Your task to perform on an android device: clear history in the chrome app Image 0: 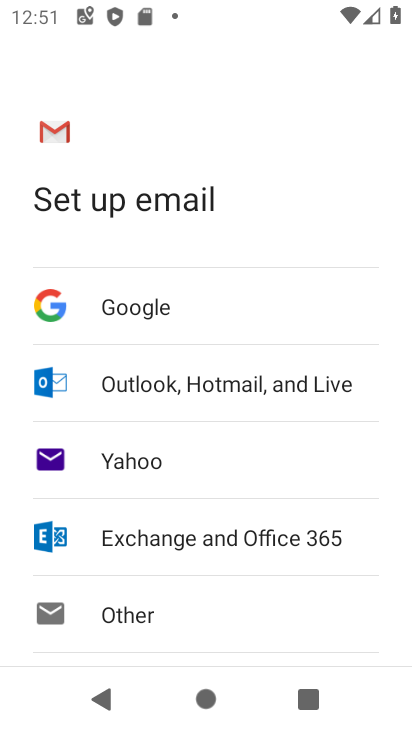
Step 0: press home button
Your task to perform on an android device: clear history in the chrome app Image 1: 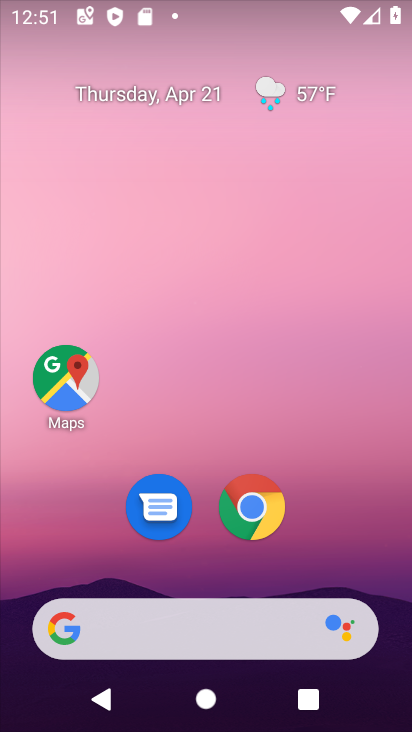
Step 1: click (251, 503)
Your task to perform on an android device: clear history in the chrome app Image 2: 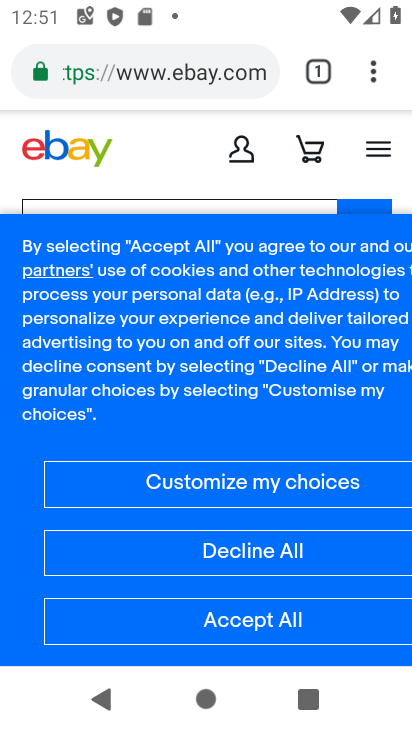
Step 2: click (373, 75)
Your task to perform on an android device: clear history in the chrome app Image 3: 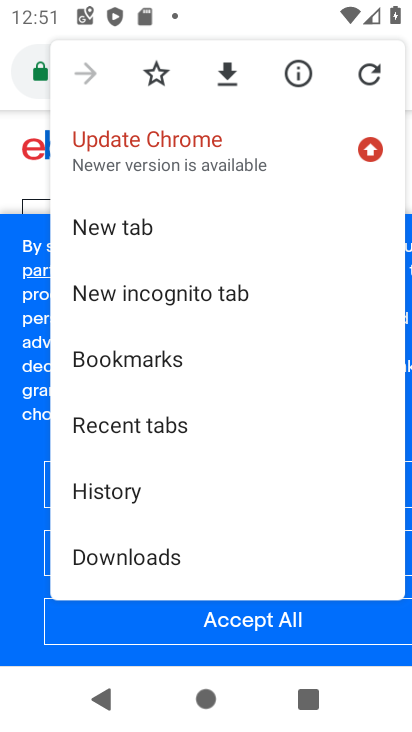
Step 3: click (106, 491)
Your task to perform on an android device: clear history in the chrome app Image 4: 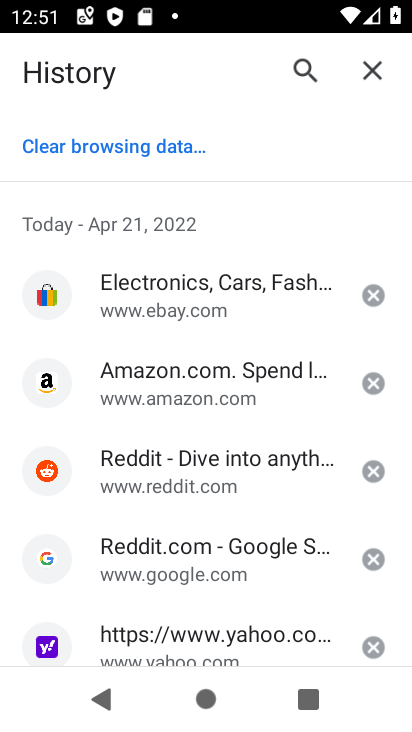
Step 4: click (94, 151)
Your task to perform on an android device: clear history in the chrome app Image 5: 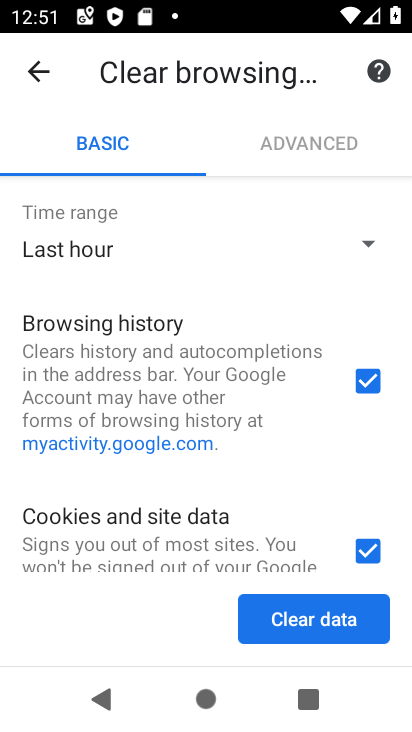
Step 5: click (319, 628)
Your task to perform on an android device: clear history in the chrome app Image 6: 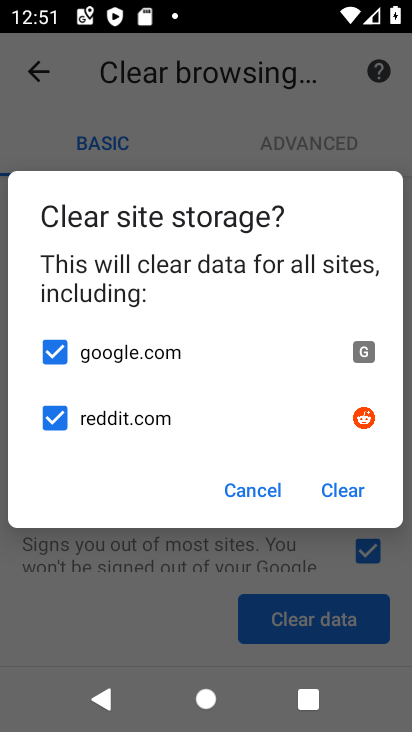
Step 6: click (322, 490)
Your task to perform on an android device: clear history in the chrome app Image 7: 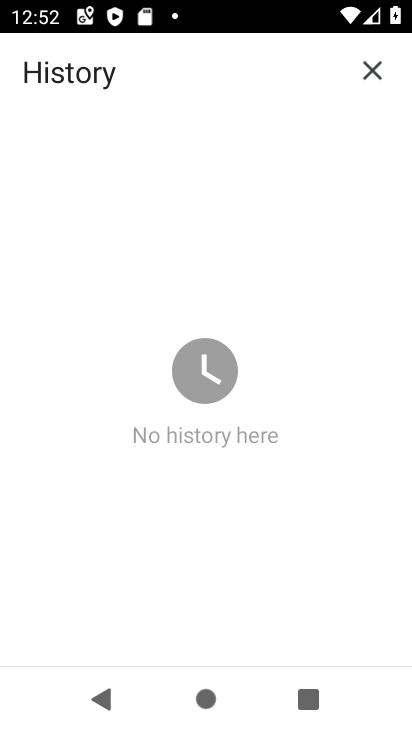
Step 7: task complete